Your task to perform on an android device: move an email to a new category in the gmail app Image 0: 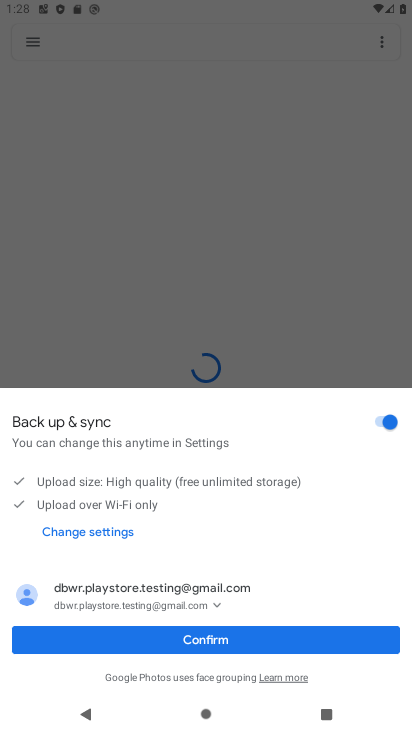
Step 0: press home button
Your task to perform on an android device: move an email to a new category in the gmail app Image 1: 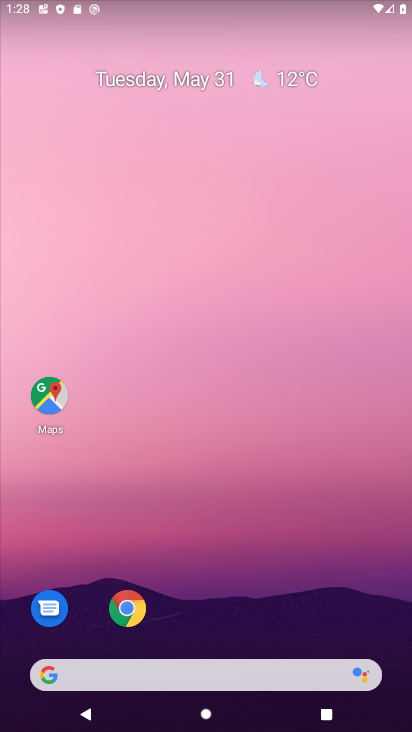
Step 1: drag from (318, 584) to (290, 120)
Your task to perform on an android device: move an email to a new category in the gmail app Image 2: 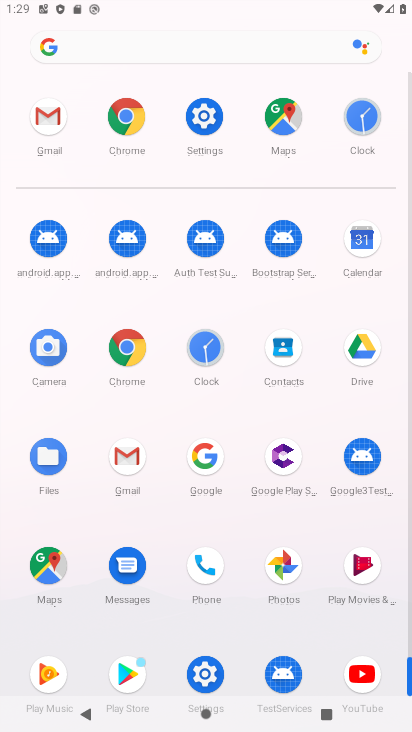
Step 2: click (115, 472)
Your task to perform on an android device: move an email to a new category in the gmail app Image 3: 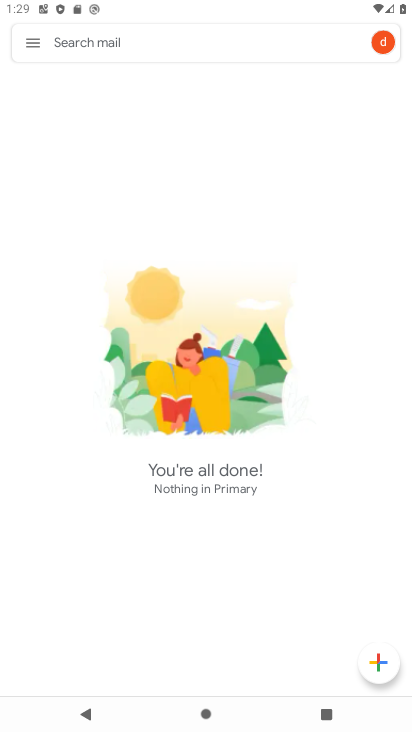
Step 3: click (29, 30)
Your task to perform on an android device: move an email to a new category in the gmail app Image 4: 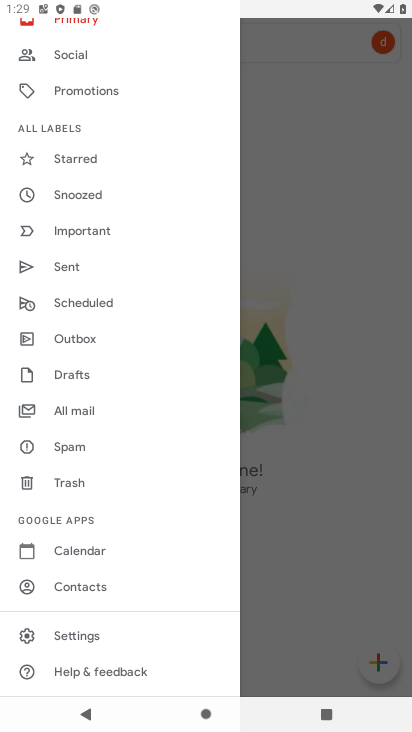
Step 4: click (121, 641)
Your task to perform on an android device: move an email to a new category in the gmail app Image 5: 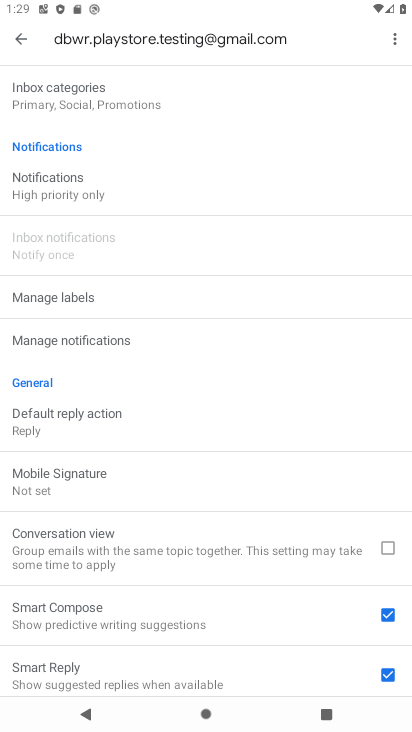
Step 5: drag from (197, 489) to (232, 283)
Your task to perform on an android device: move an email to a new category in the gmail app Image 6: 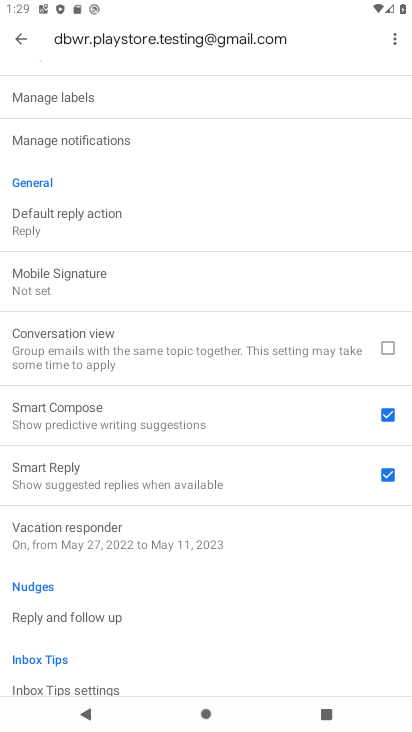
Step 6: click (15, 33)
Your task to perform on an android device: move an email to a new category in the gmail app Image 7: 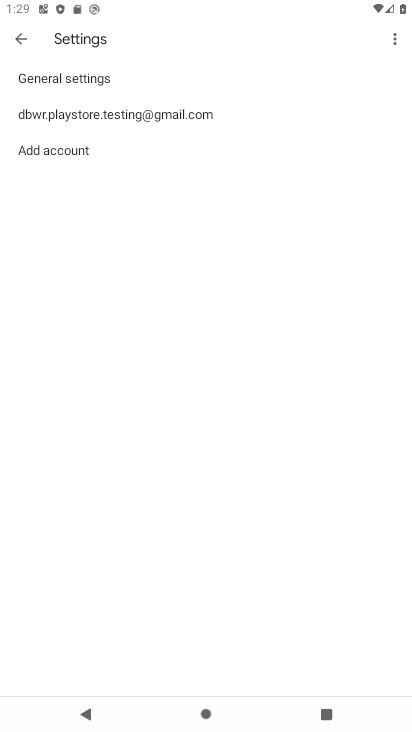
Step 7: click (27, 46)
Your task to perform on an android device: move an email to a new category in the gmail app Image 8: 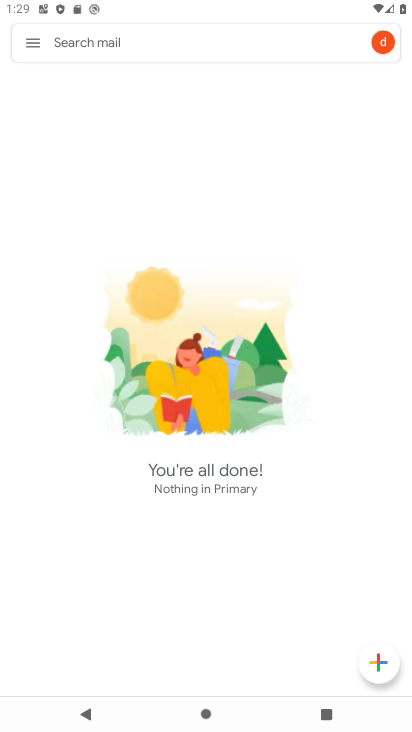
Step 8: click (28, 47)
Your task to perform on an android device: move an email to a new category in the gmail app Image 9: 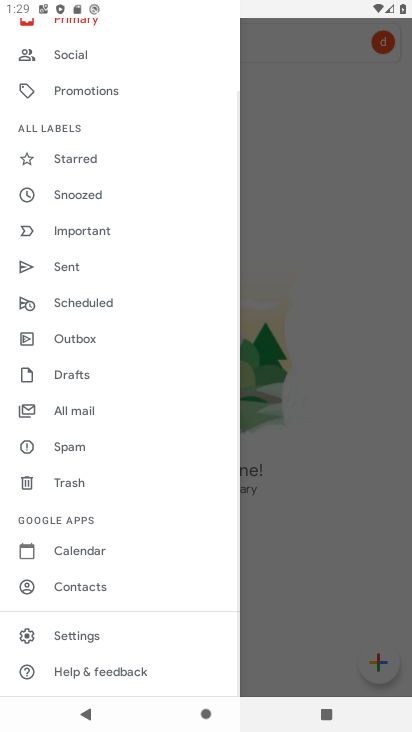
Step 9: click (122, 414)
Your task to perform on an android device: move an email to a new category in the gmail app Image 10: 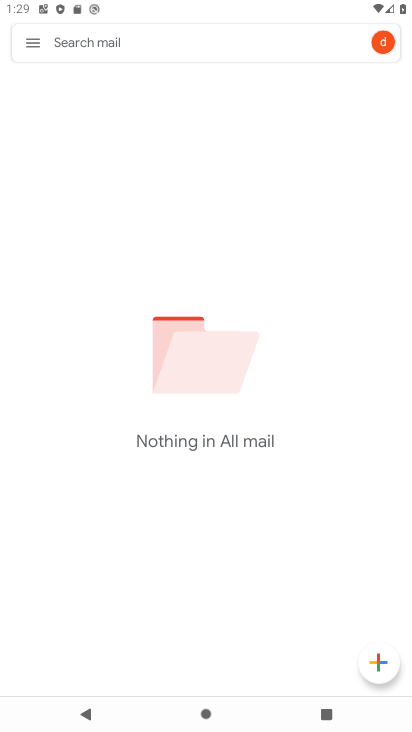
Step 10: task complete